Your task to perform on an android device: toggle javascript in the chrome app Image 0: 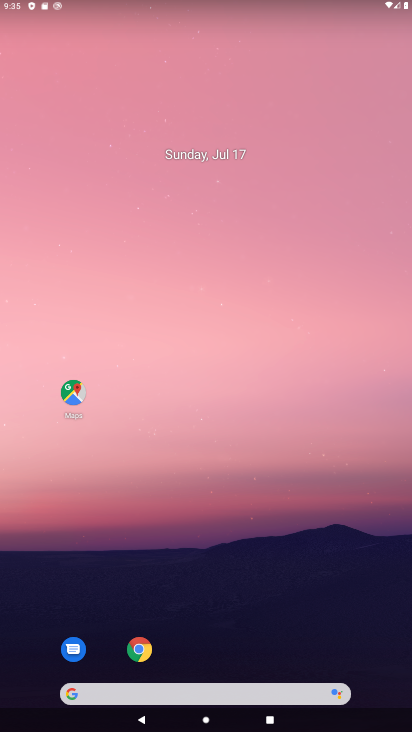
Step 0: click (133, 649)
Your task to perform on an android device: toggle javascript in the chrome app Image 1: 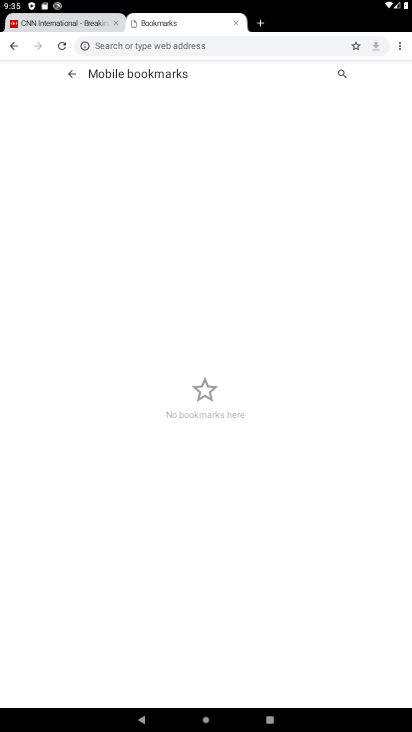
Step 1: click (402, 45)
Your task to perform on an android device: toggle javascript in the chrome app Image 2: 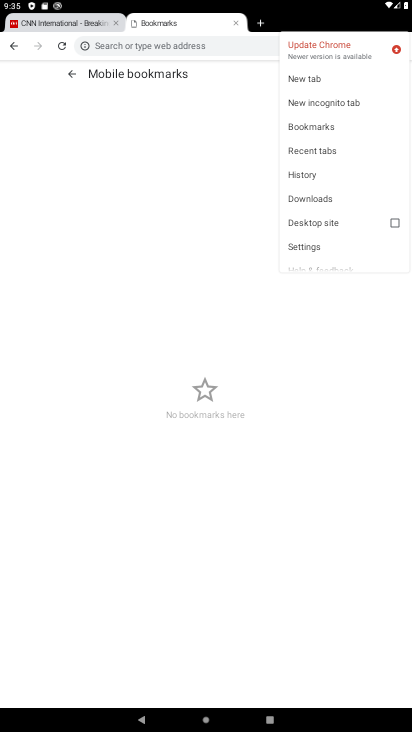
Step 2: click (306, 244)
Your task to perform on an android device: toggle javascript in the chrome app Image 3: 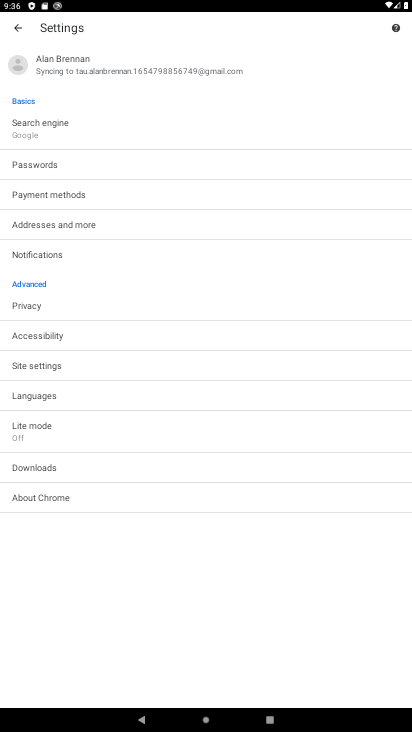
Step 3: click (58, 364)
Your task to perform on an android device: toggle javascript in the chrome app Image 4: 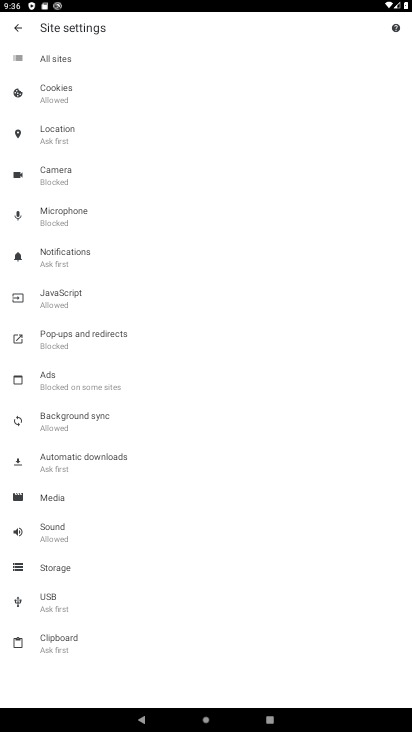
Step 4: click (82, 300)
Your task to perform on an android device: toggle javascript in the chrome app Image 5: 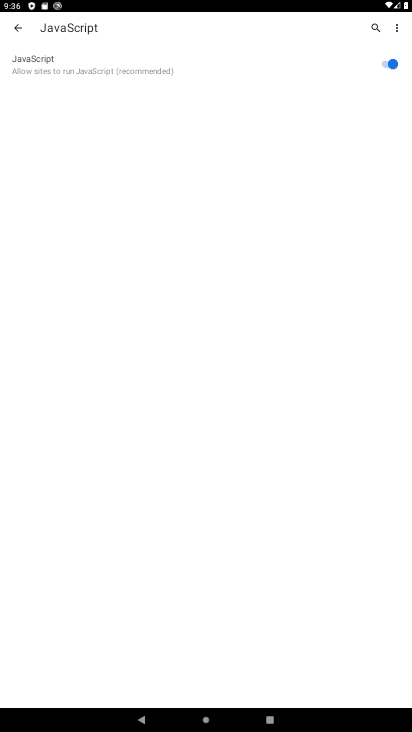
Step 5: task complete